Your task to perform on an android device: Go to battery settings Image 0: 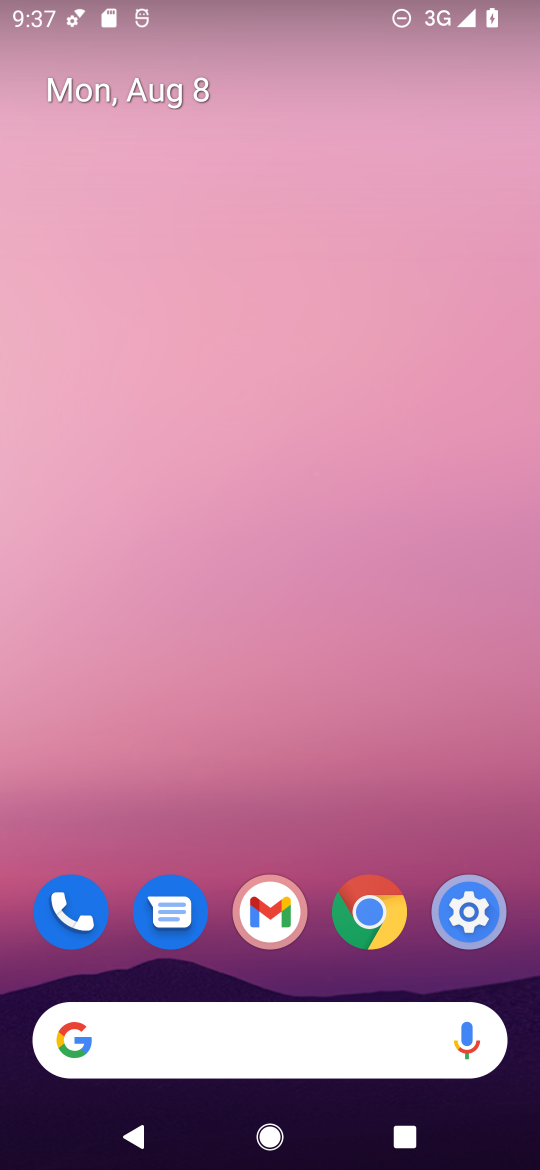
Step 0: drag from (432, 965) to (234, 140)
Your task to perform on an android device: Go to battery settings Image 1: 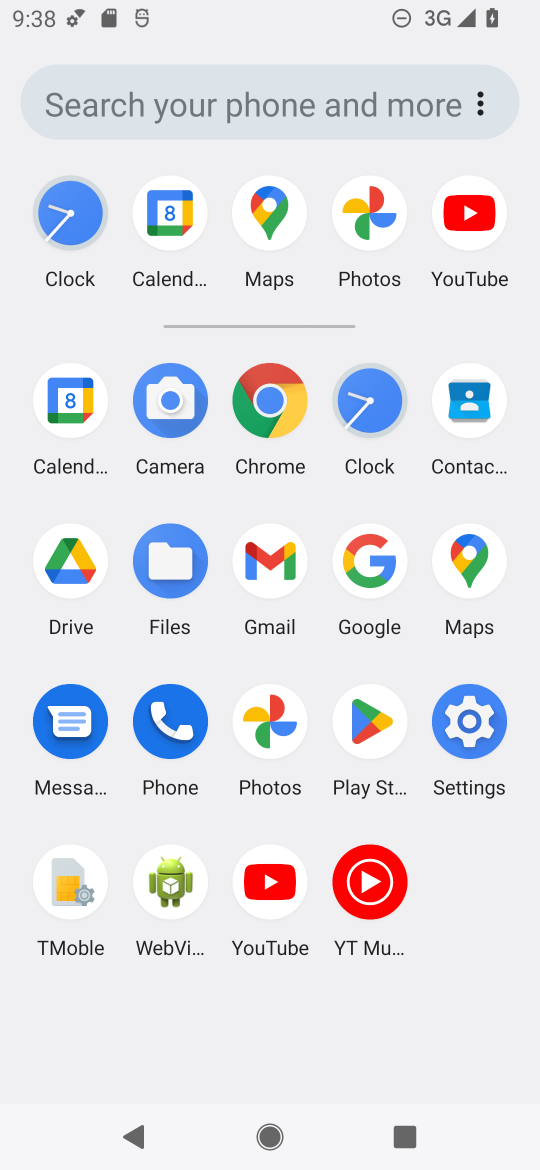
Step 1: click (511, 740)
Your task to perform on an android device: Go to battery settings Image 2: 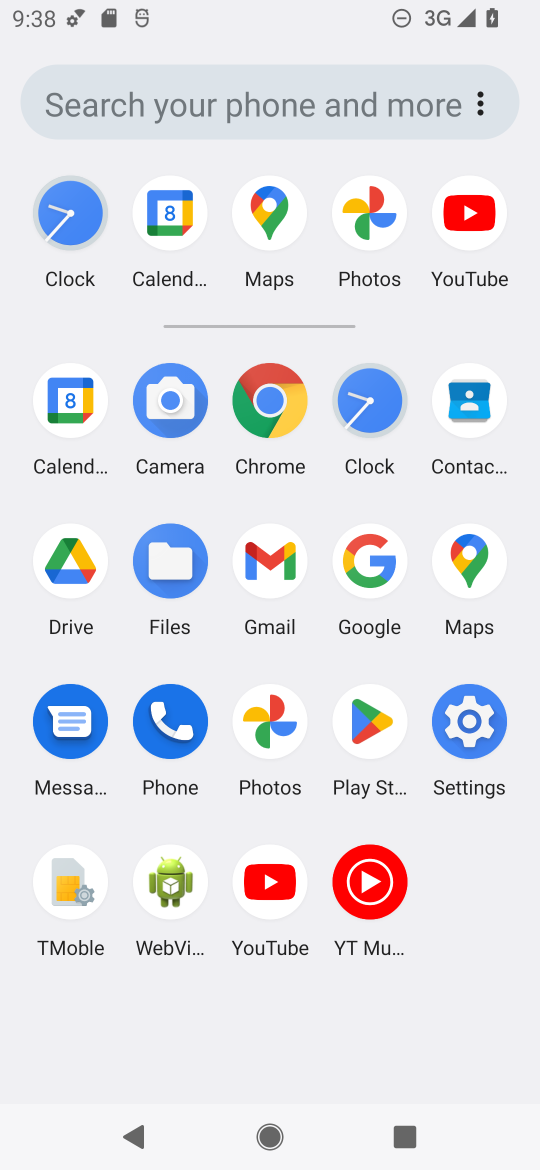
Step 2: click (462, 718)
Your task to perform on an android device: Go to battery settings Image 3: 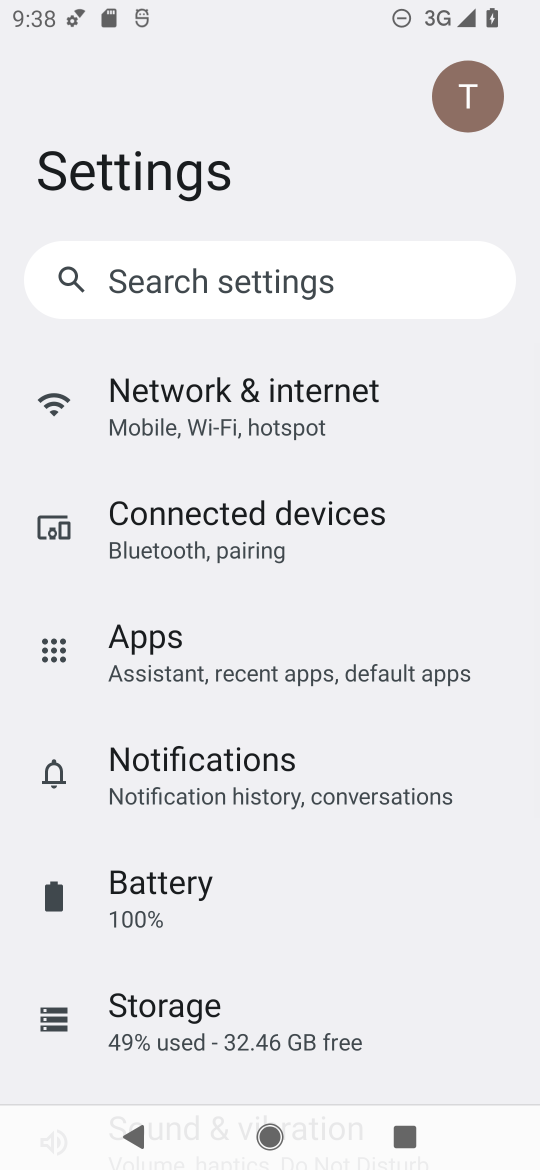
Step 3: click (236, 902)
Your task to perform on an android device: Go to battery settings Image 4: 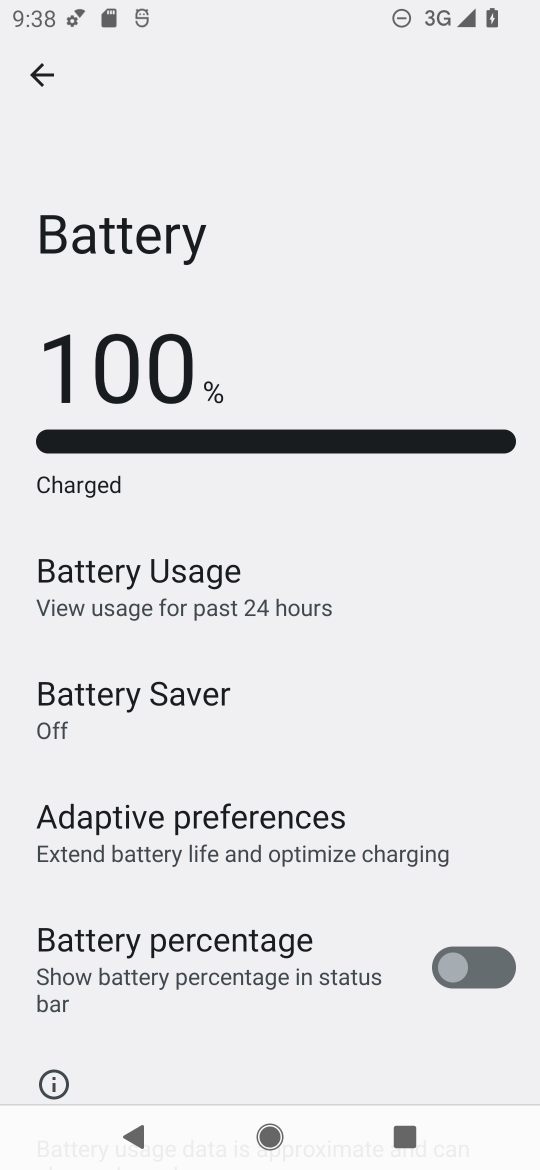
Step 4: task complete